Your task to perform on an android device: Open Yahoo.com Image 0: 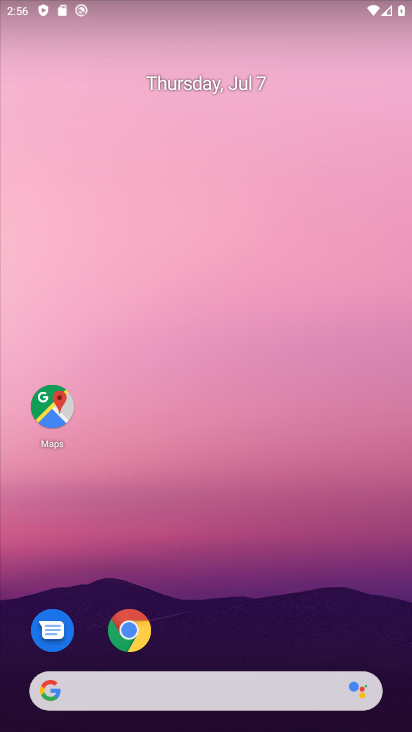
Step 0: click (125, 631)
Your task to perform on an android device: Open Yahoo.com Image 1: 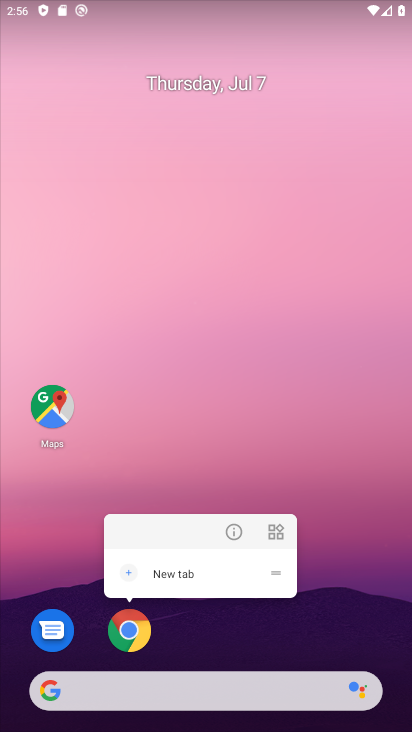
Step 1: click (132, 636)
Your task to perform on an android device: Open Yahoo.com Image 2: 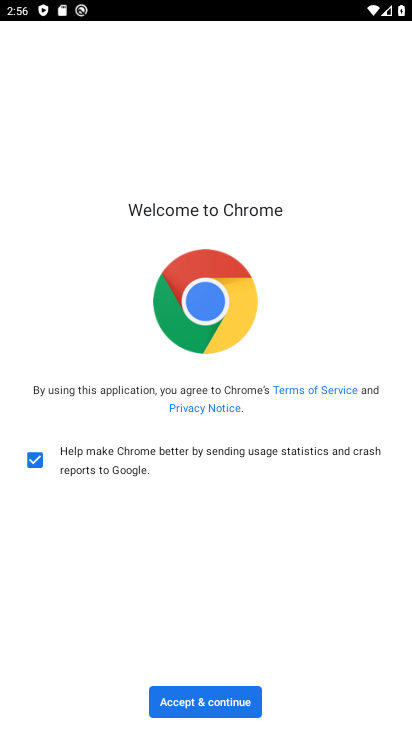
Step 2: click (219, 701)
Your task to perform on an android device: Open Yahoo.com Image 3: 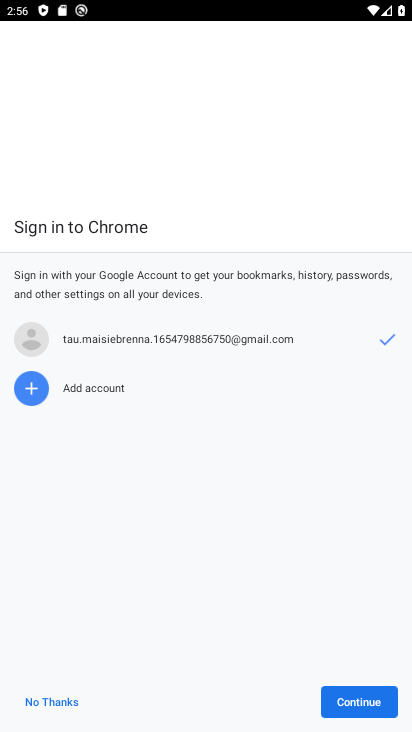
Step 3: click (358, 707)
Your task to perform on an android device: Open Yahoo.com Image 4: 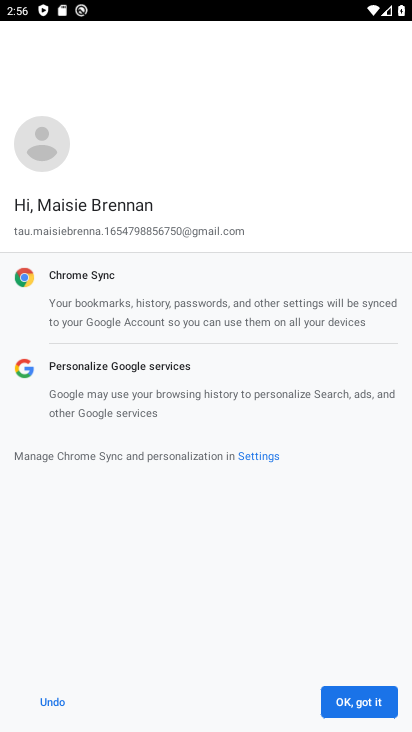
Step 4: click (358, 707)
Your task to perform on an android device: Open Yahoo.com Image 5: 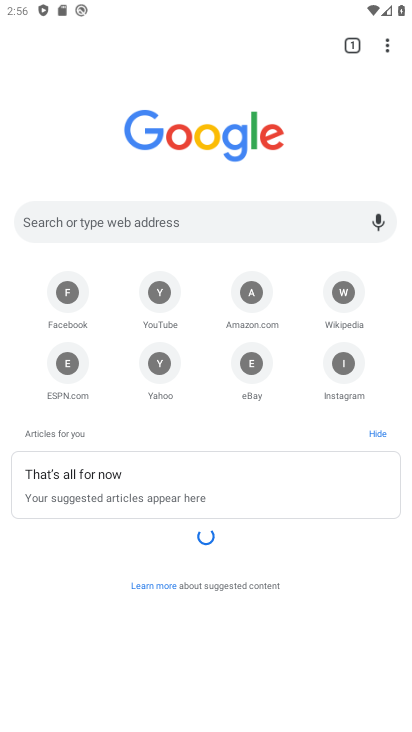
Step 5: click (159, 379)
Your task to perform on an android device: Open Yahoo.com Image 6: 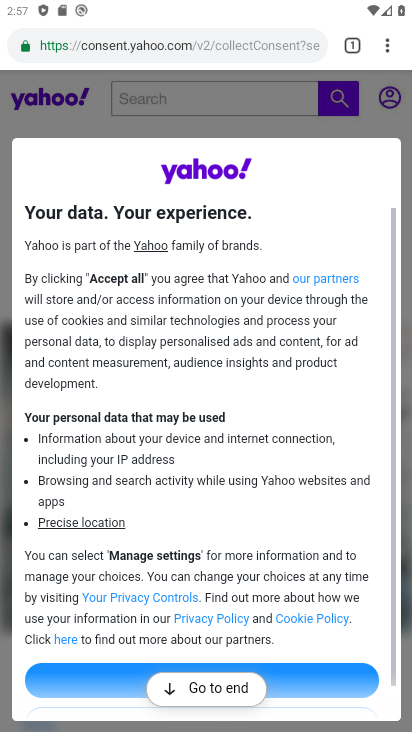
Step 6: task complete